Your task to perform on an android device: What's the weather? Image 0: 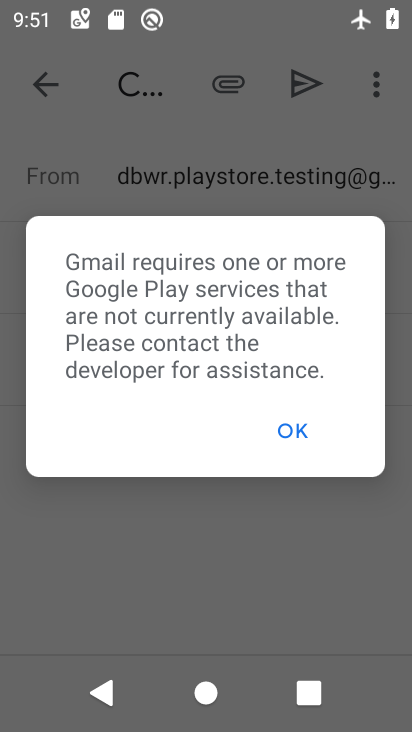
Step 0: press home button
Your task to perform on an android device: What's the weather? Image 1: 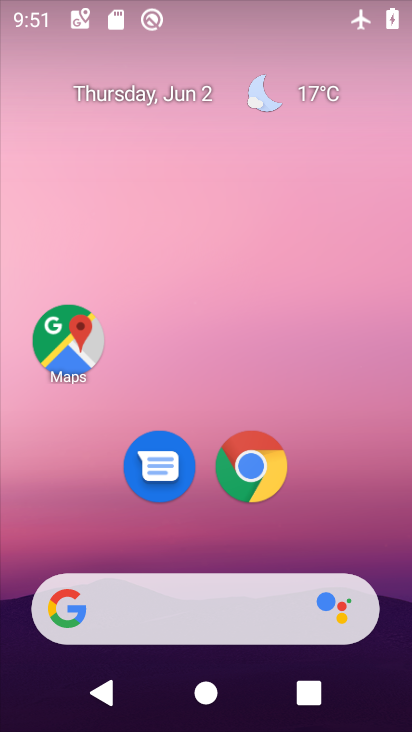
Step 1: click (255, 458)
Your task to perform on an android device: What's the weather? Image 2: 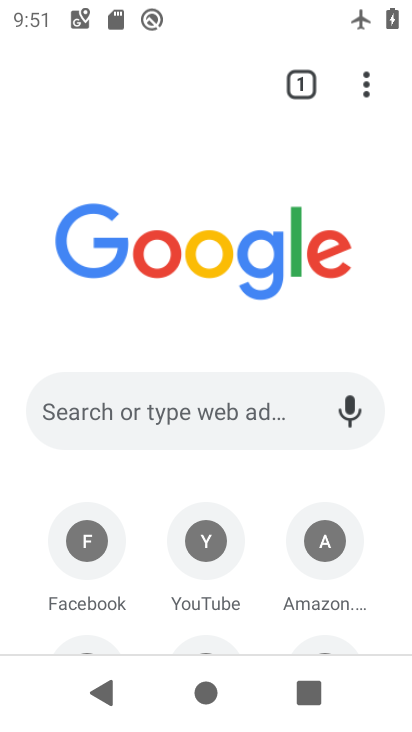
Step 2: click (70, 169)
Your task to perform on an android device: What's the weather? Image 3: 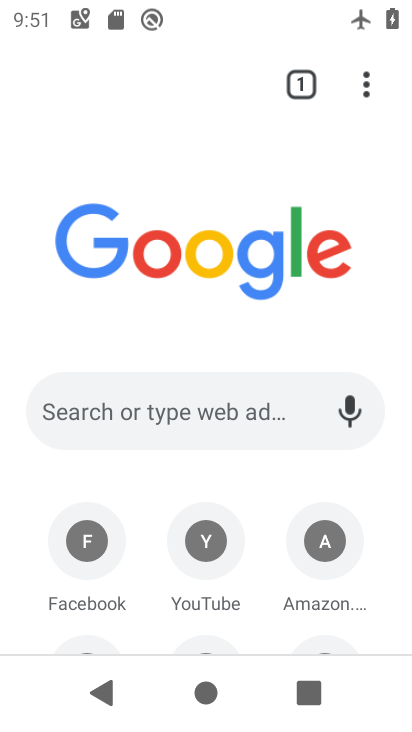
Step 3: click (184, 414)
Your task to perform on an android device: What's the weather? Image 4: 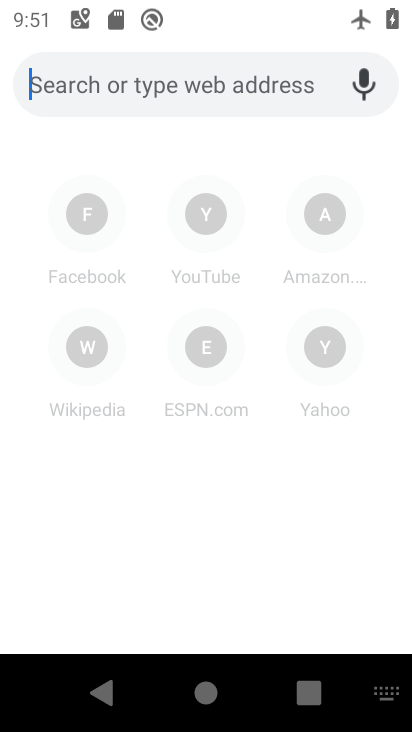
Step 4: click (120, 60)
Your task to perform on an android device: What's the weather? Image 5: 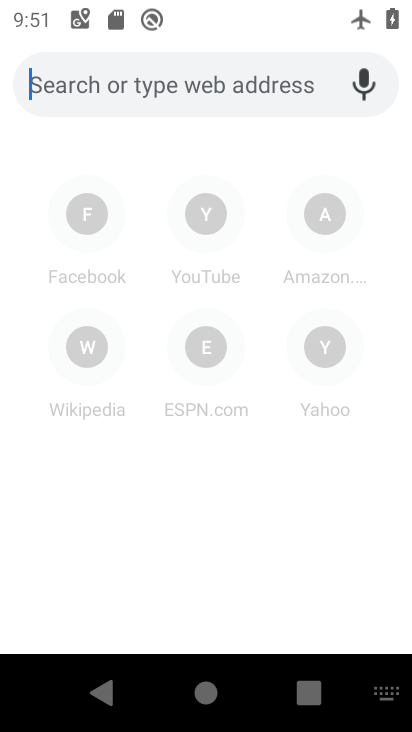
Step 5: type "What's the weather?"
Your task to perform on an android device: What's the weather? Image 6: 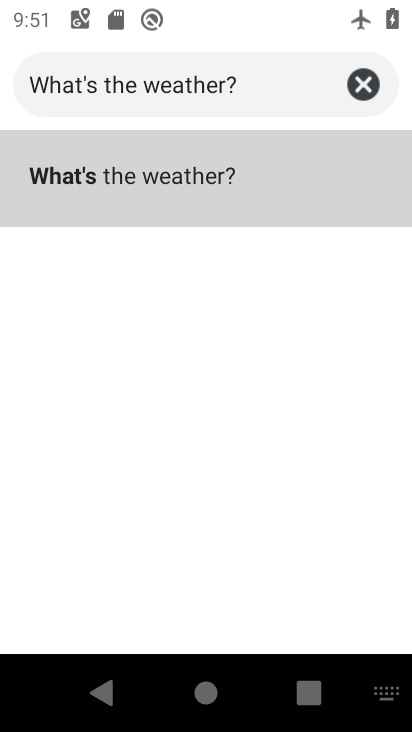
Step 6: click (229, 183)
Your task to perform on an android device: What's the weather? Image 7: 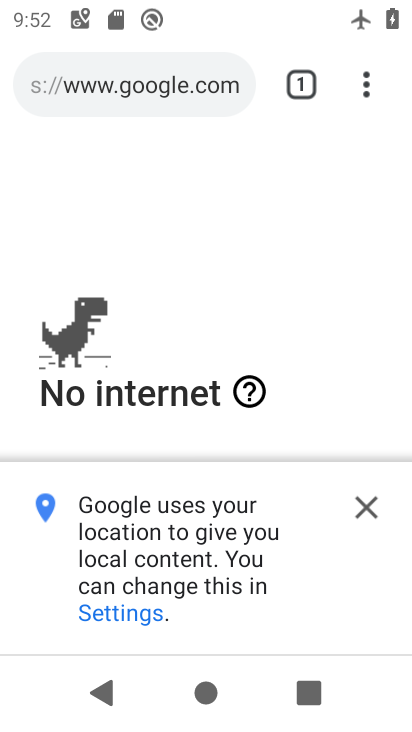
Step 7: task complete